Your task to perform on an android device: Do I have any events tomorrow? Image 0: 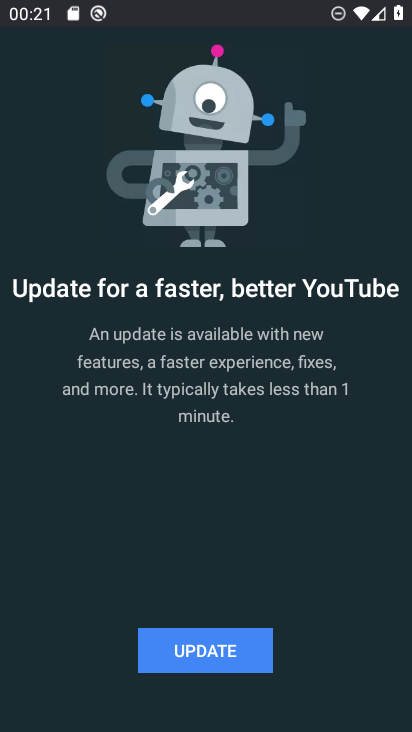
Step 0: press home button
Your task to perform on an android device: Do I have any events tomorrow? Image 1: 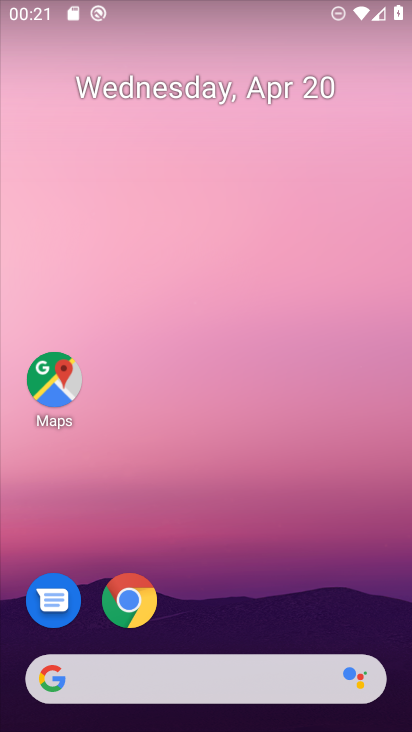
Step 1: drag from (373, 583) to (317, 138)
Your task to perform on an android device: Do I have any events tomorrow? Image 2: 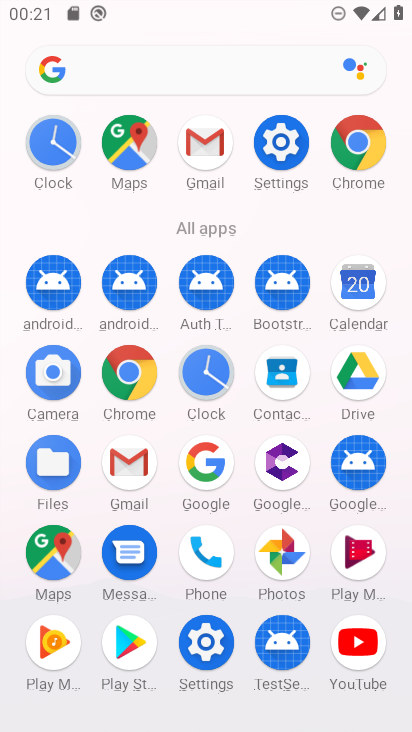
Step 2: click (357, 281)
Your task to perform on an android device: Do I have any events tomorrow? Image 3: 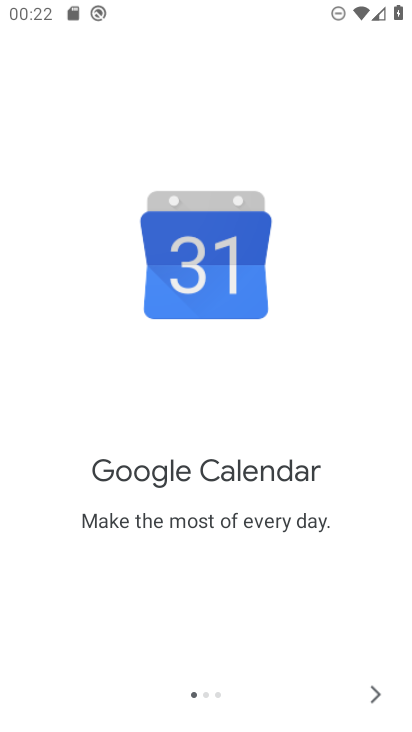
Step 3: click (381, 696)
Your task to perform on an android device: Do I have any events tomorrow? Image 4: 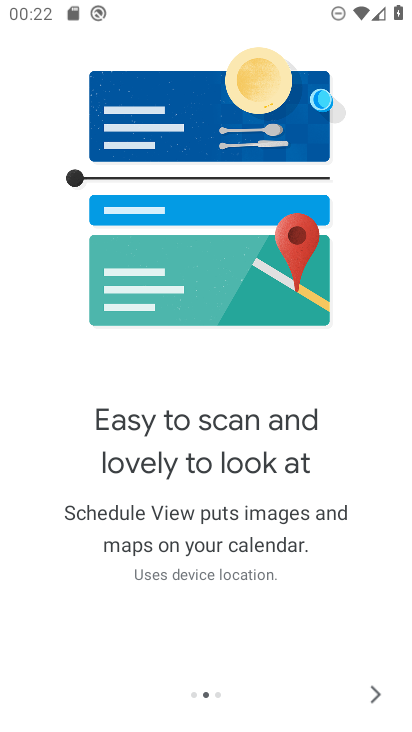
Step 4: click (381, 696)
Your task to perform on an android device: Do I have any events tomorrow? Image 5: 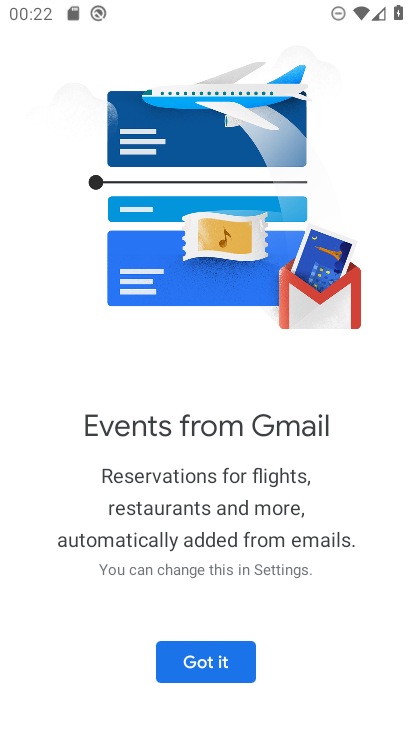
Step 5: click (215, 657)
Your task to perform on an android device: Do I have any events tomorrow? Image 6: 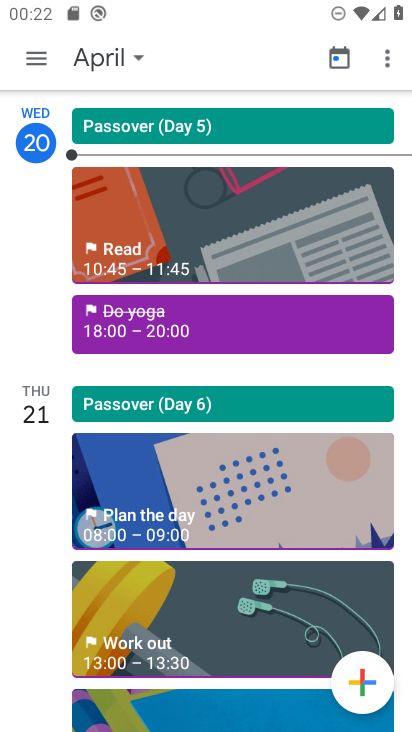
Step 6: task complete